Your task to perform on an android device: change the upload size in google photos Image 0: 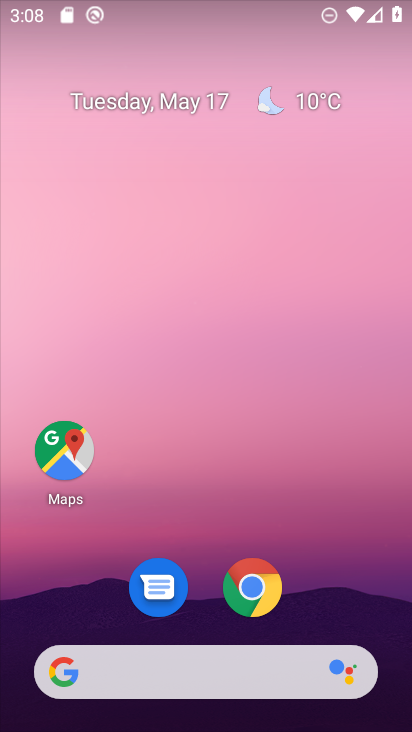
Step 0: drag from (338, 607) to (297, 30)
Your task to perform on an android device: change the upload size in google photos Image 1: 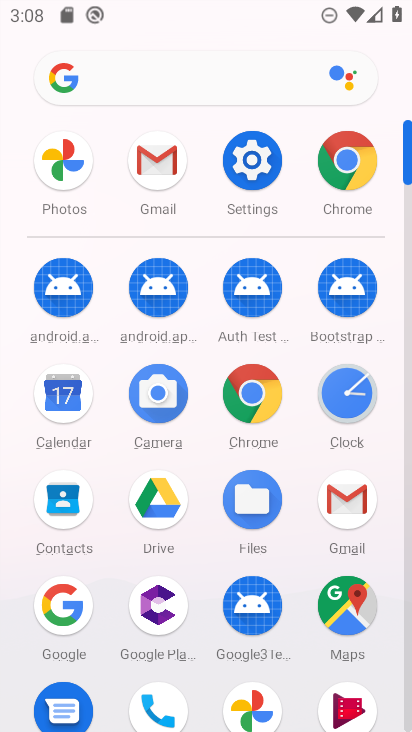
Step 1: drag from (15, 583) to (28, 169)
Your task to perform on an android device: change the upload size in google photos Image 2: 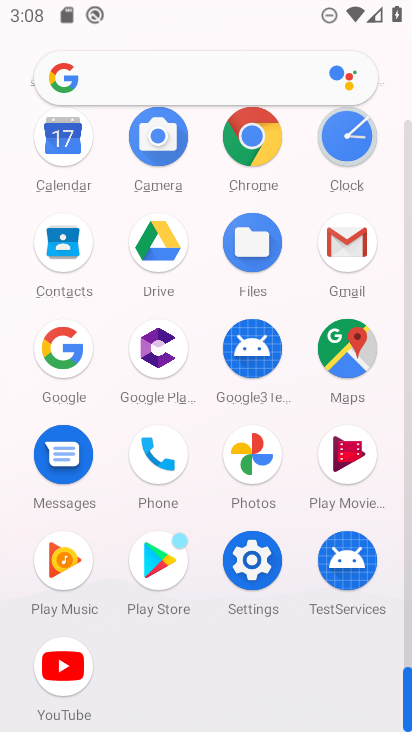
Step 2: click (258, 457)
Your task to perform on an android device: change the upload size in google photos Image 3: 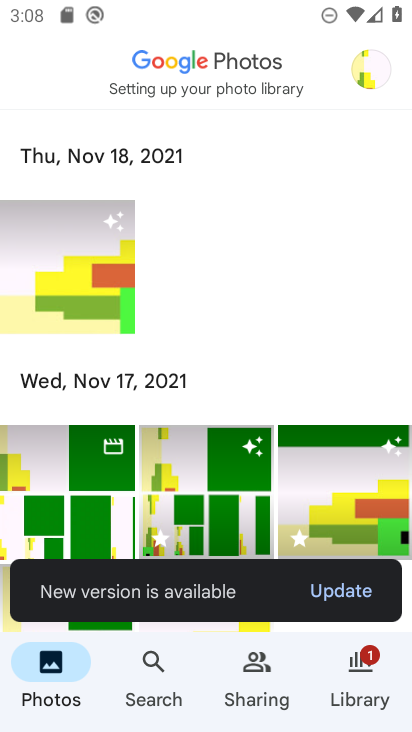
Step 3: click (360, 59)
Your task to perform on an android device: change the upload size in google photos Image 4: 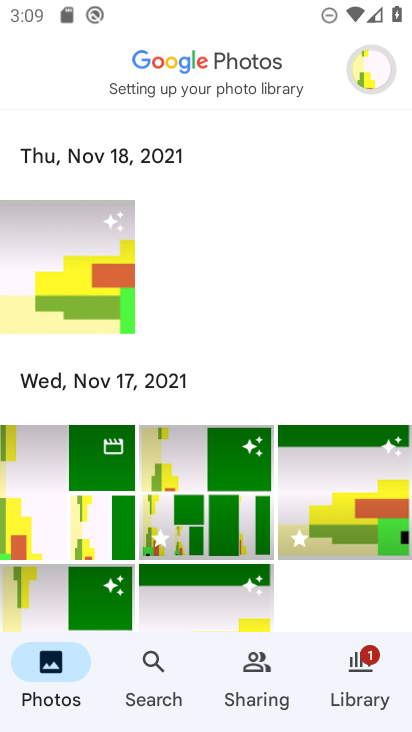
Step 4: click (358, 74)
Your task to perform on an android device: change the upload size in google photos Image 5: 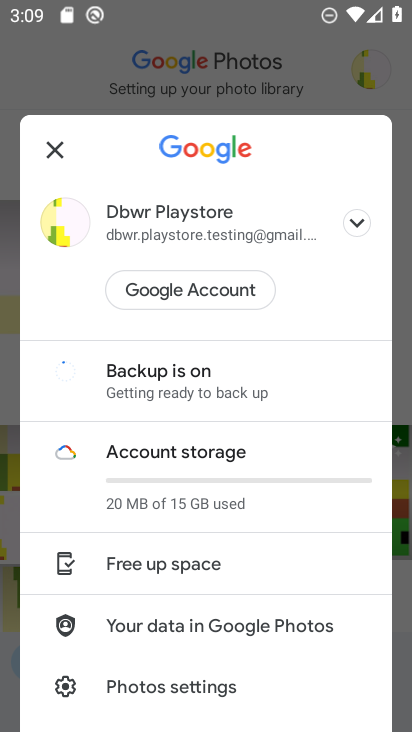
Step 5: click (143, 683)
Your task to perform on an android device: change the upload size in google photos Image 6: 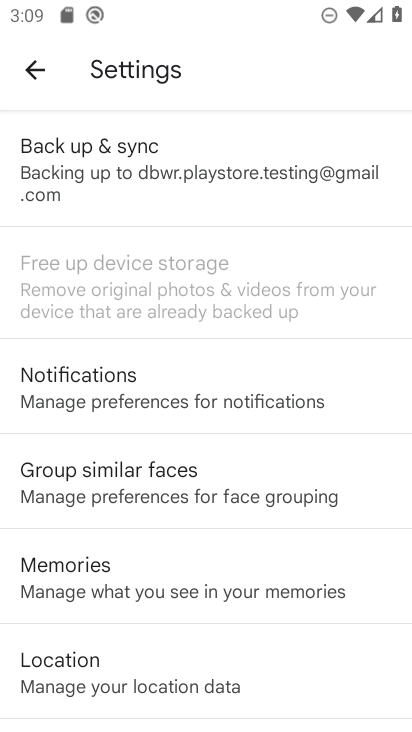
Step 6: click (159, 170)
Your task to perform on an android device: change the upload size in google photos Image 7: 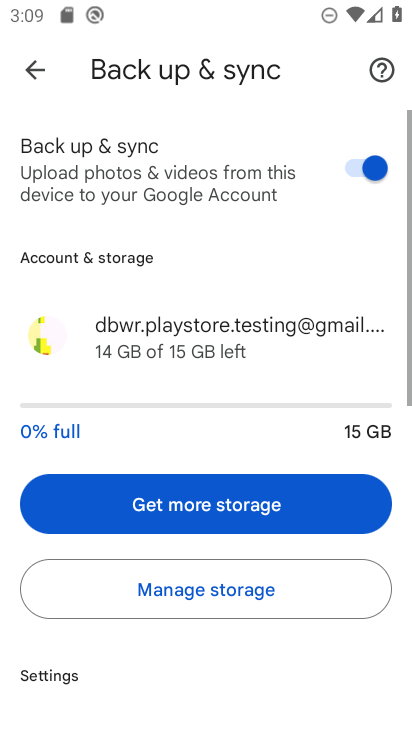
Step 7: drag from (174, 432) to (195, 113)
Your task to perform on an android device: change the upload size in google photos Image 8: 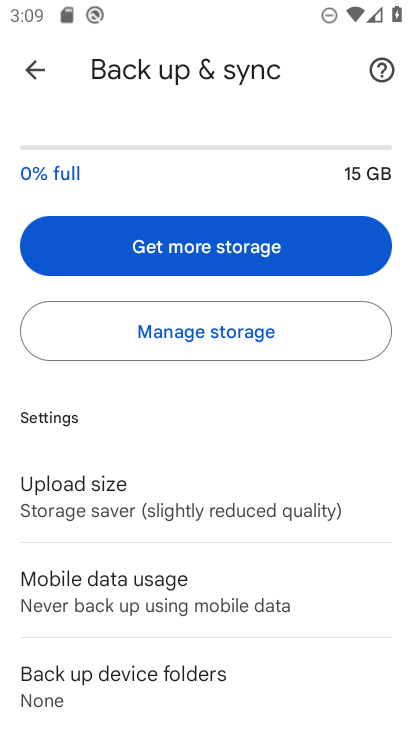
Step 8: click (145, 516)
Your task to perform on an android device: change the upload size in google photos Image 9: 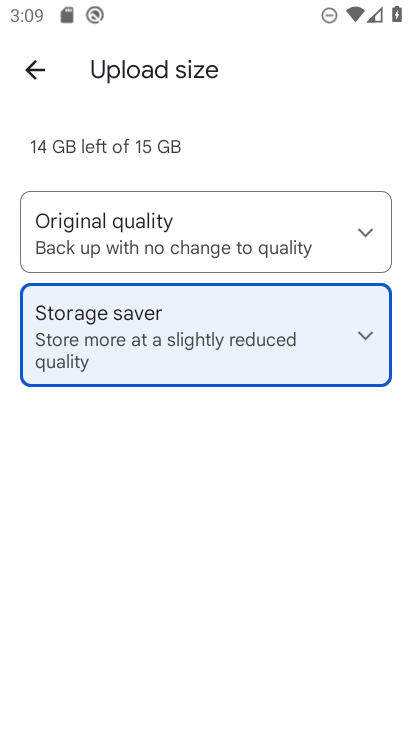
Step 9: click (176, 223)
Your task to perform on an android device: change the upload size in google photos Image 10: 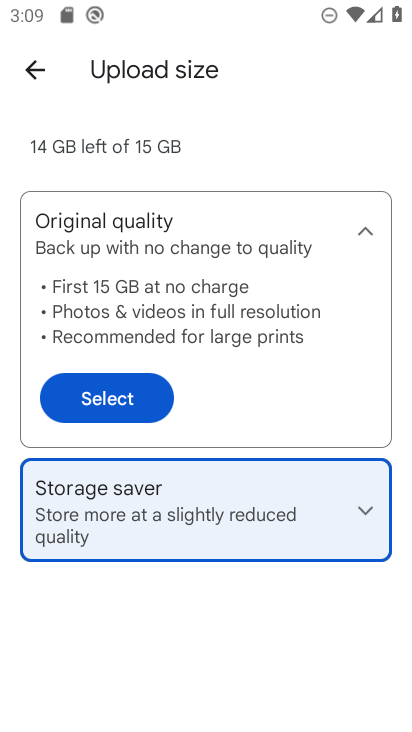
Step 10: click (127, 379)
Your task to perform on an android device: change the upload size in google photos Image 11: 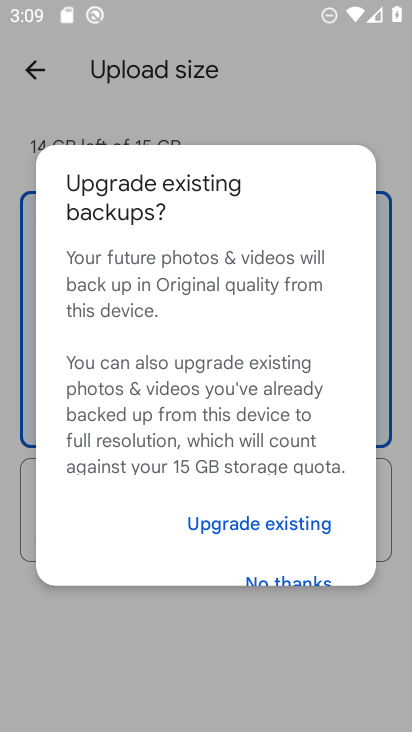
Step 11: click (265, 576)
Your task to perform on an android device: change the upload size in google photos Image 12: 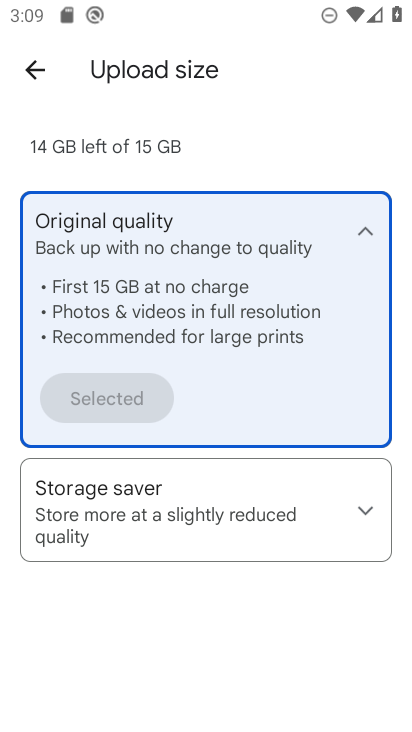
Step 12: task complete